Your task to perform on an android device: How do I get to the nearest Best Buy? Image 0: 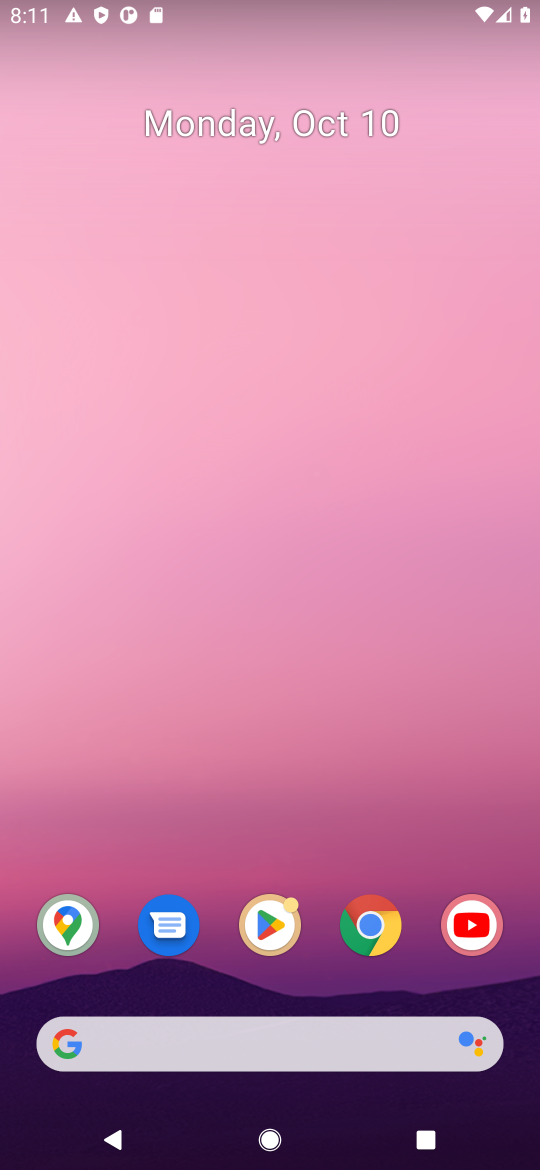
Step 0: drag from (323, 933) to (341, 174)
Your task to perform on an android device: How do I get to the nearest Best Buy? Image 1: 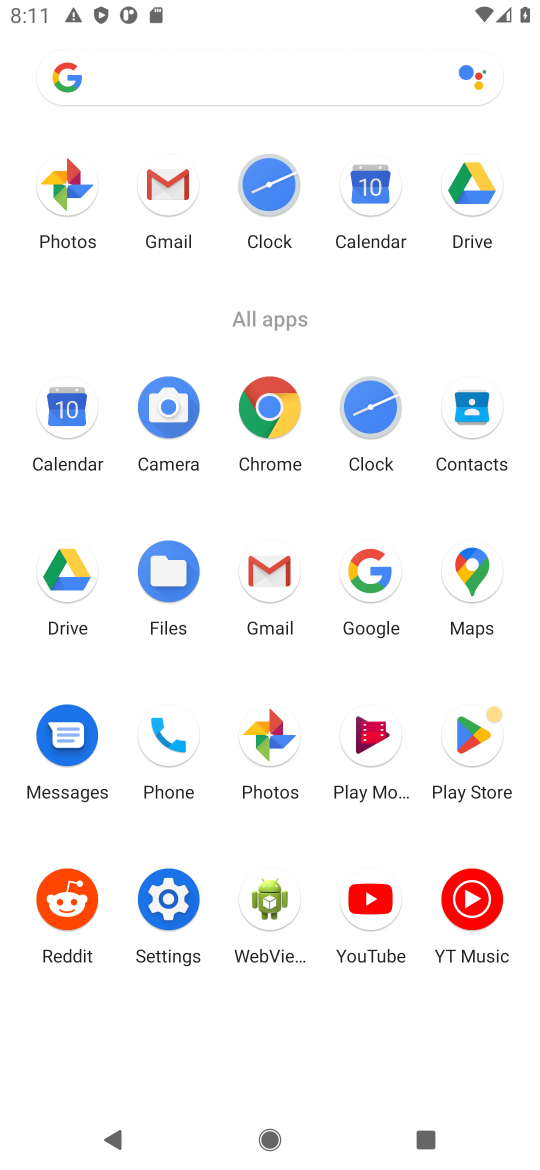
Step 1: click (272, 402)
Your task to perform on an android device: How do I get to the nearest Best Buy? Image 2: 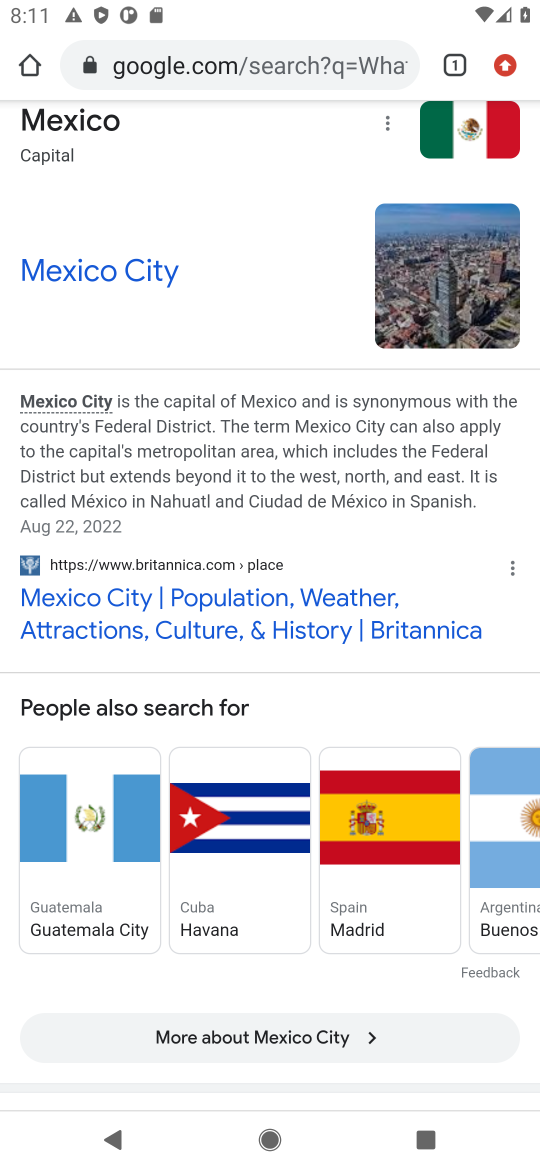
Step 2: click (295, 76)
Your task to perform on an android device: How do I get to the nearest Best Buy? Image 3: 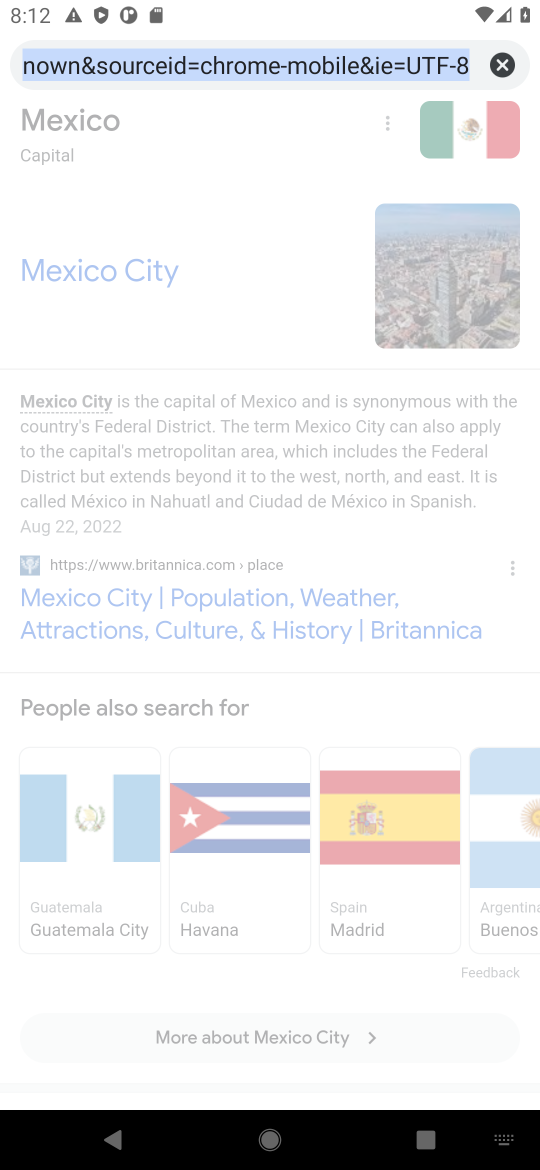
Step 3: type "how do I get to the nearest Best Buy?"
Your task to perform on an android device: How do I get to the nearest Best Buy? Image 4: 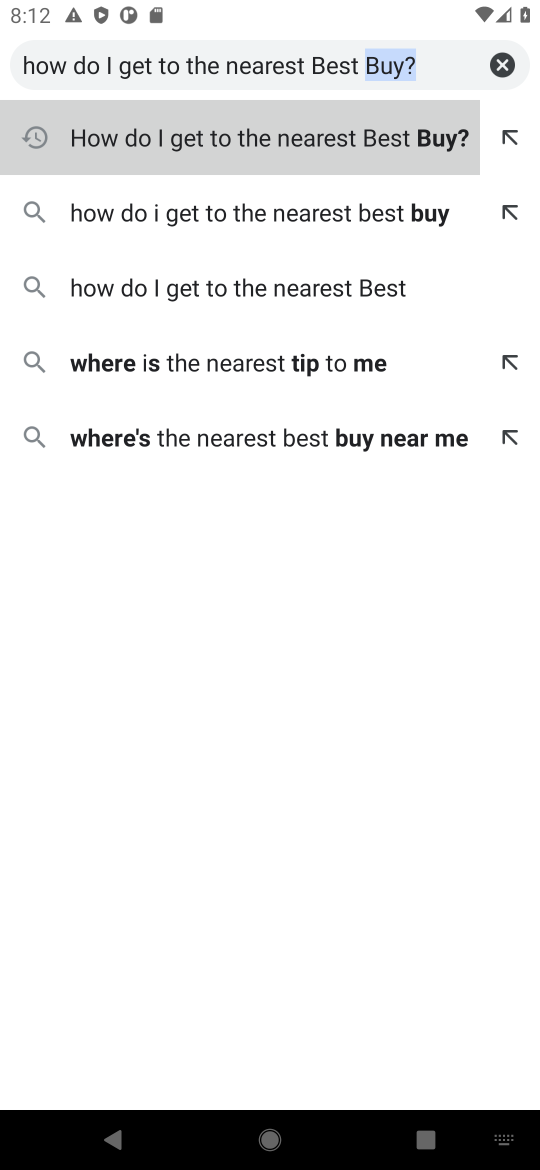
Step 4: type "Buy?"
Your task to perform on an android device: How do I get to the nearest Best Buy? Image 5: 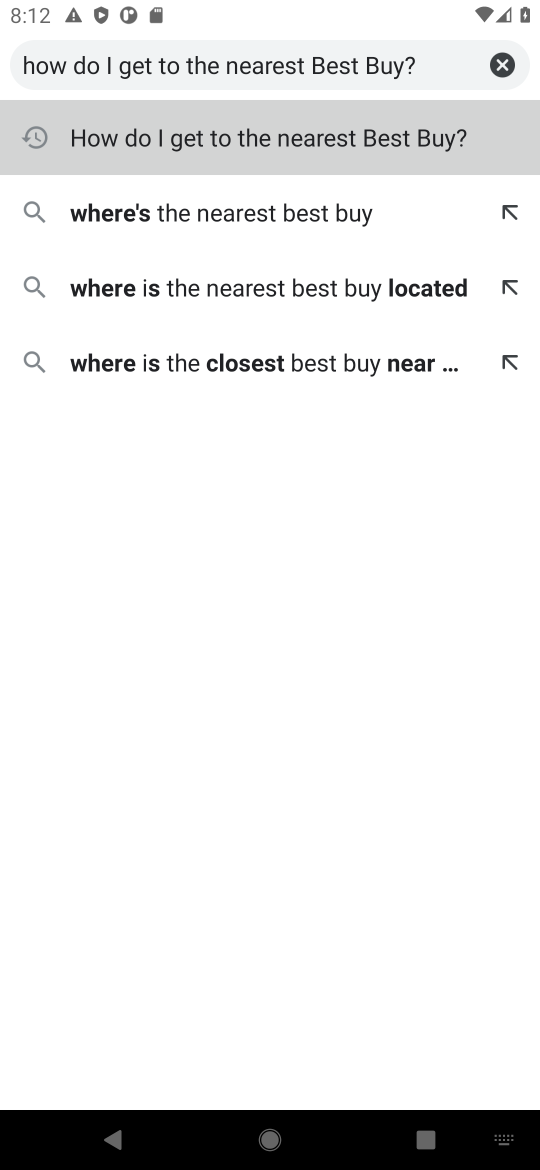
Step 5: press enter
Your task to perform on an android device: How do I get to the nearest Best Buy? Image 6: 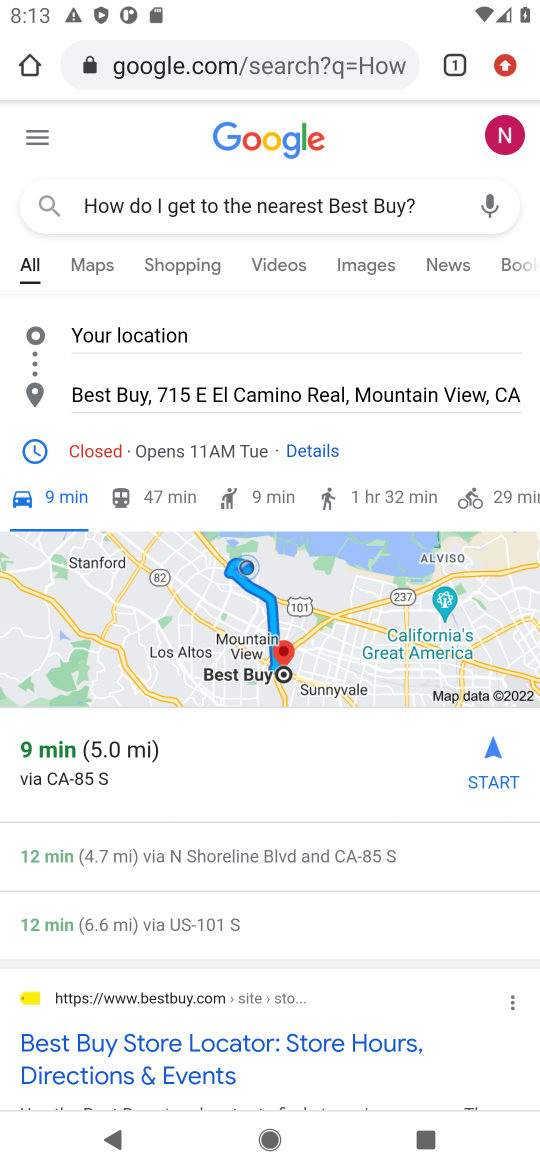
Step 6: task complete